Your task to perform on an android device: Open internet settings Image 0: 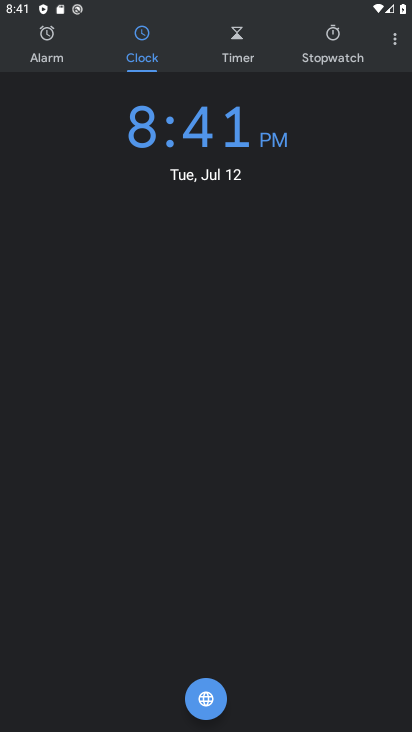
Step 0: press home button
Your task to perform on an android device: Open internet settings Image 1: 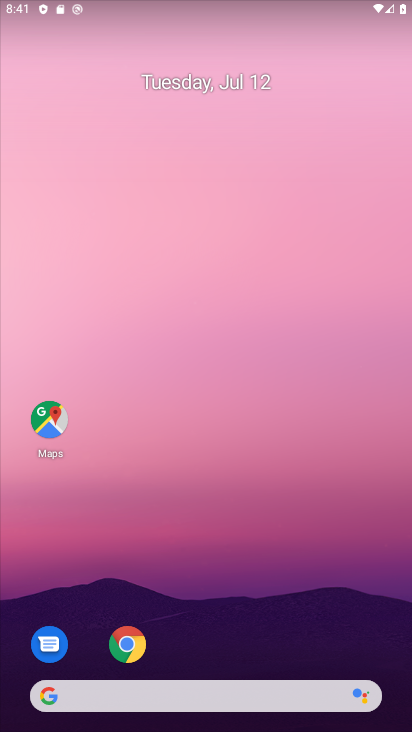
Step 1: drag from (195, 645) to (338, 21)
Your task to perform on an android device: Open internet settings Image 2: 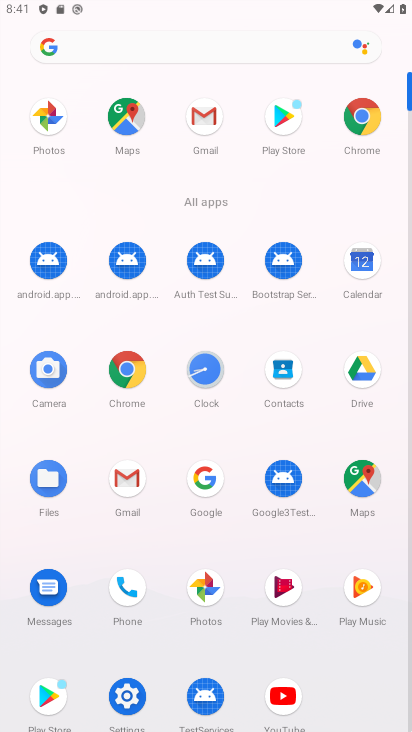
Step 2: click (120, 696)
Your task to perform on an android device: Open internet settings Image 3: 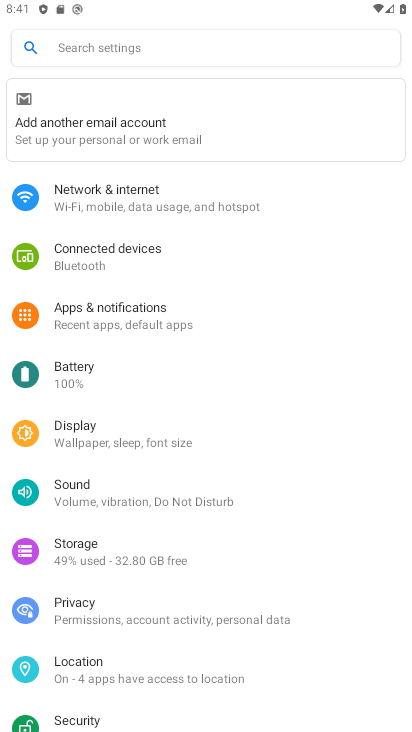
Step 3: click (213, 197)
Your task to perform on an android device: Open internet settings Image 4: 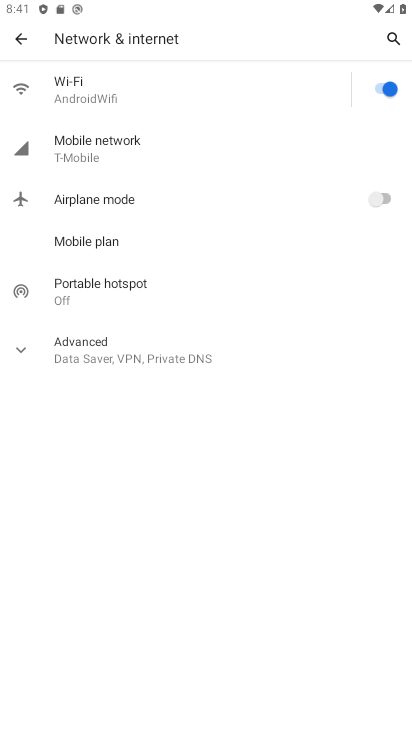
Step 4: click (178, 149)
Your task to perform on an android device: Open internet settings Image 5: 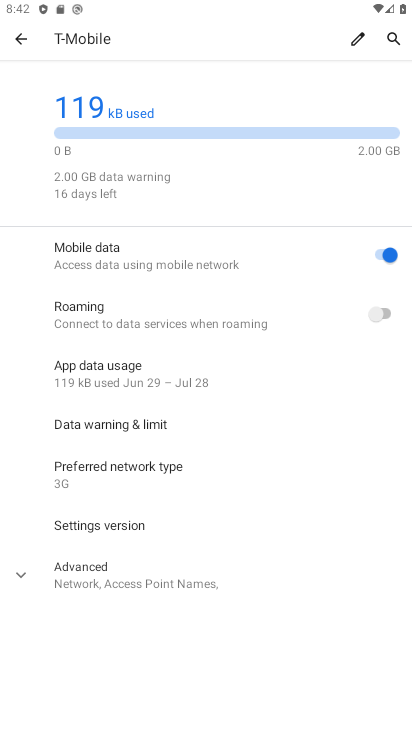
Step 5: task complete